Your task to perform on an android device: move an email to a new category in the gmail app Image 0: 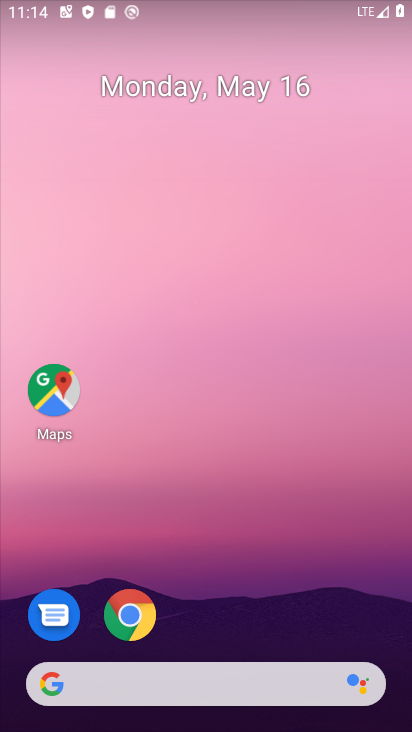
Step 0: drag from (195, 484) to (177, 274)
Your task to perform on an android device: move an email to a new category in the gmail app Image 1: 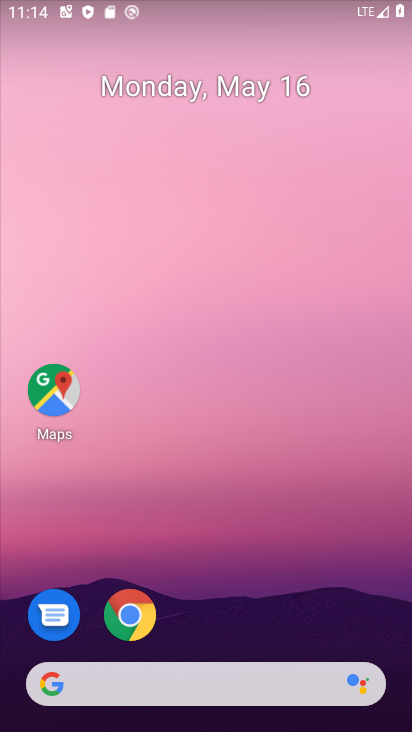
Step 1: drag from (228, 587) to (183, 194)
Your task to perform on an android device: move an email to a new category in the gmail app Image 2: 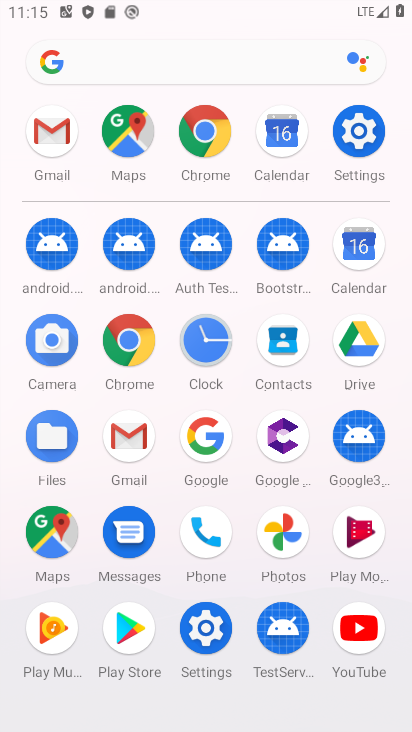
Step 2: click (153, 459)
Your task to perform on an android device: move an email to a new category in the gmail app Image 3: 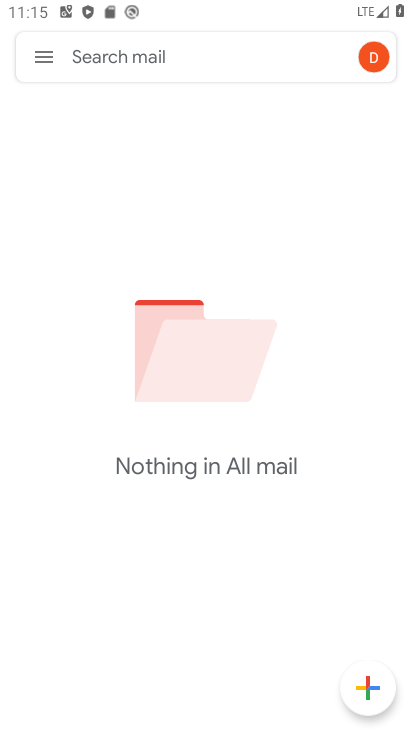
Step 3: click (39, 66)
Your task to perform on an android device: move an email to a new category in the gmail app Image 4: 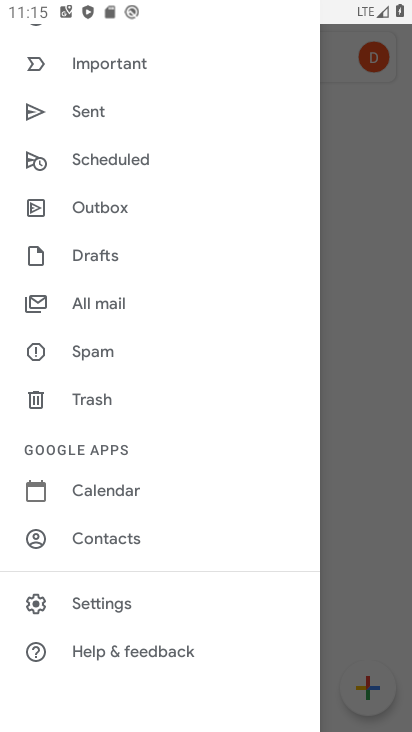
Step 4: click (138, 300)
Your task to perform on an android device: move an email to a new category in the gmail app Image 5: 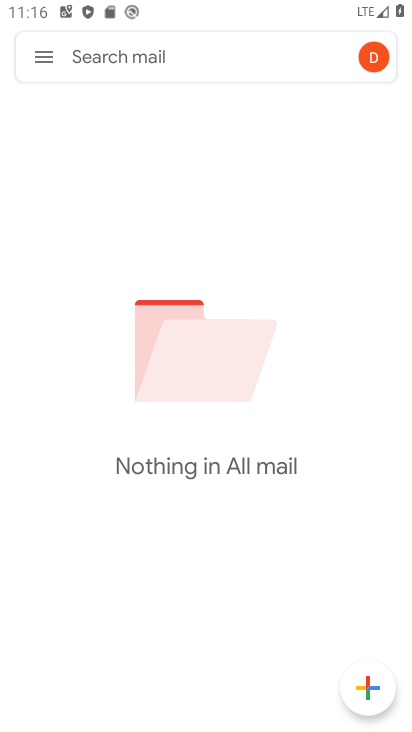
Step 5: task complete